Your task to perform on an android device: toggle data saver in the chrome app Image 0: 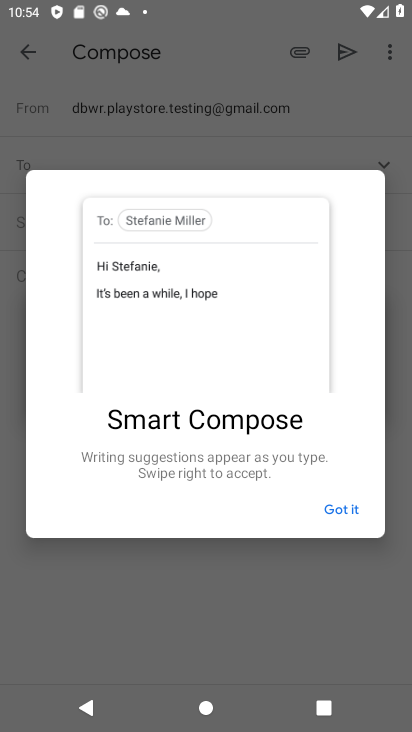
Step 0: press home button
Your task to perform on an android device: toggle data saver in the chrome app Image 1: 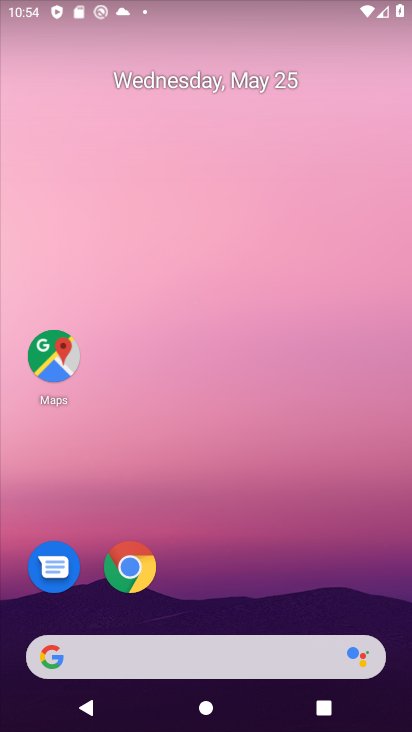
Step 1: drag from (226, 590) to (255, 20)
Your task to perform on an android device: toggle data saver in the chrome app Image 2: 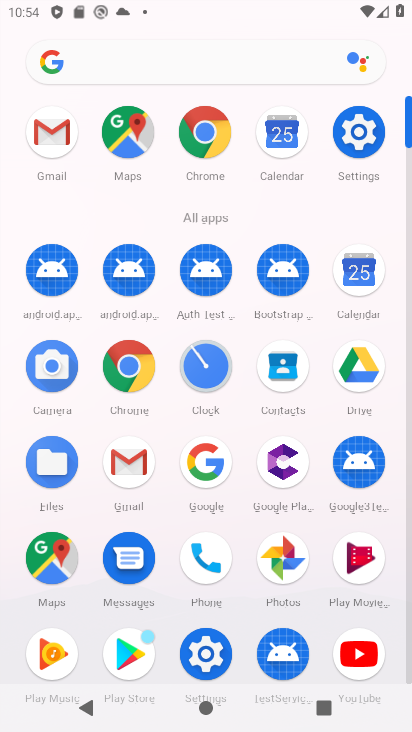
Step 2: click (132, 381)
Your task to perform on an android device: toggle data saver in the chrome app Image 3: 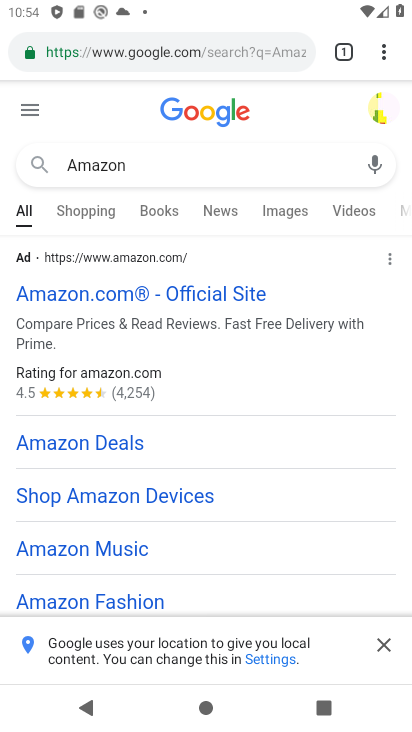
Step 3: click (383, 43)
Your task to perform on an android device: toggle data saver in the chrome app Image 4: 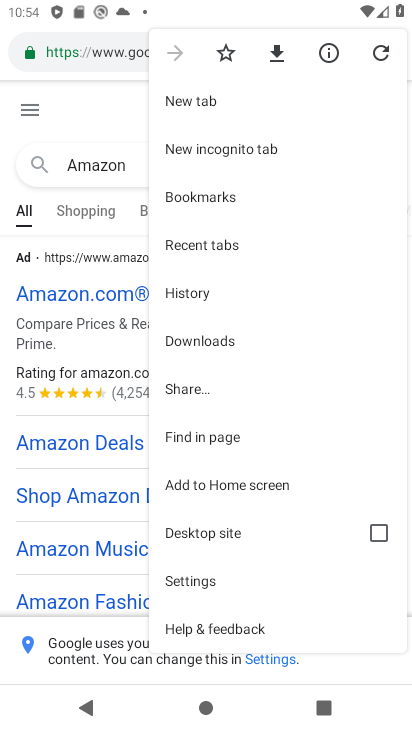
Step 4: click (201, 584)
Your task to perform on an android device: toggle data saver in the chrome app Image 5: 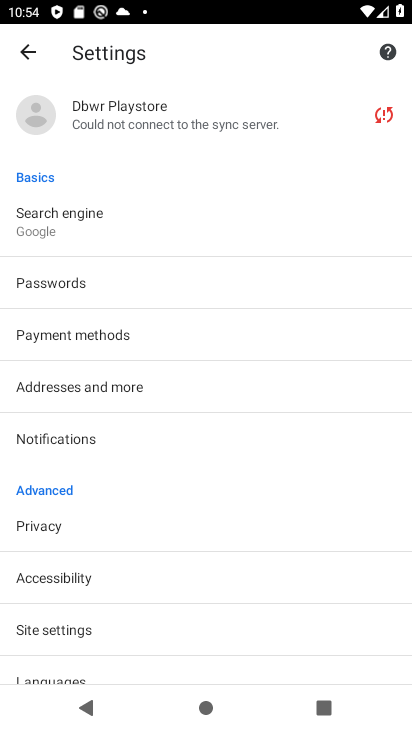
Step 5: drag from (106, 619) to (119, 368)
Your task to perform on an android device: toggle data saver in the chrome app Image 6: 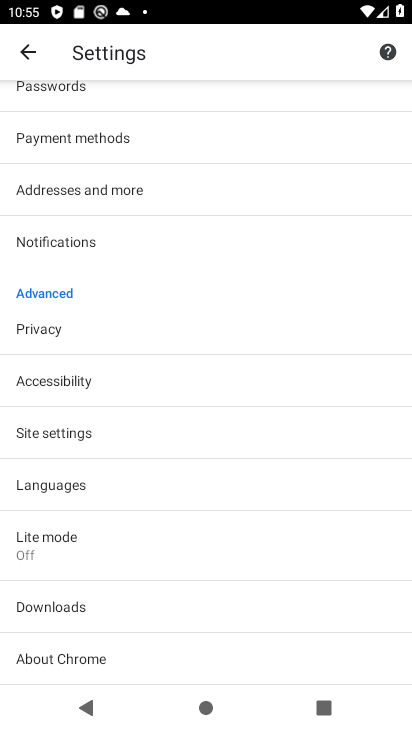
Step 6: click (88, 538)
Your task to perform on an android device: toggle data saver in the chrome app Image 7: 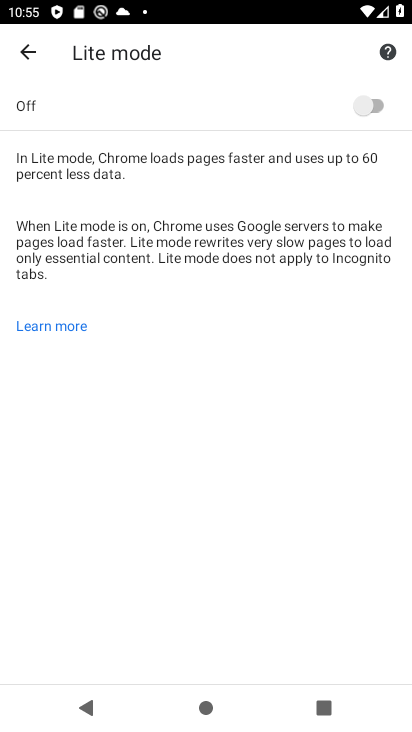
Step 7: click (381, 104)
Your task to perform on an android device: toggle data saver in the chrome app Image 8: 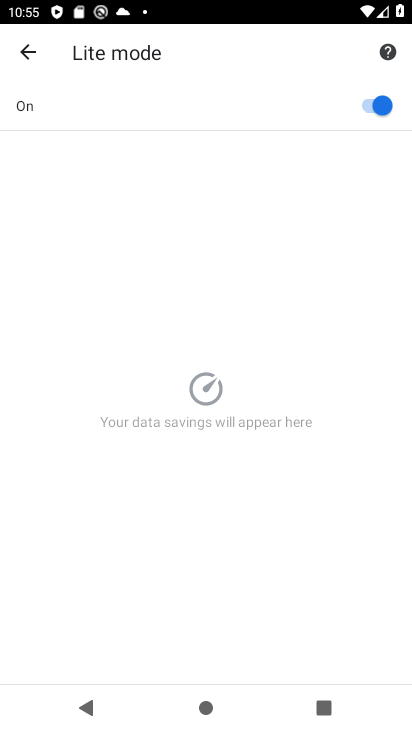
Step 8: task complete